Your task to perform on an android device: check data usage Image 0: 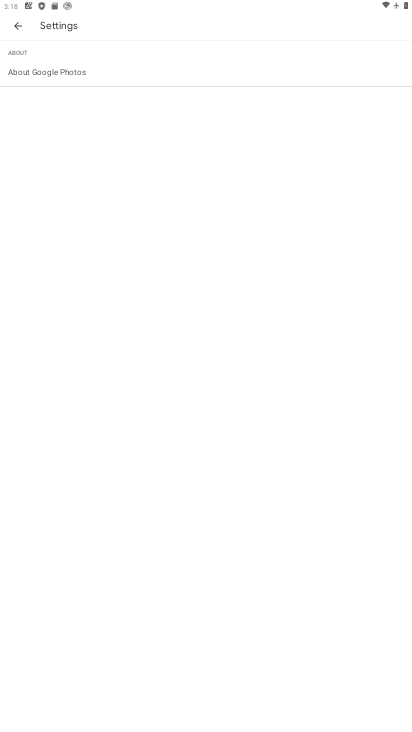
Step 0: press home button
Your task to perform on an android device: check data usage Image 1: 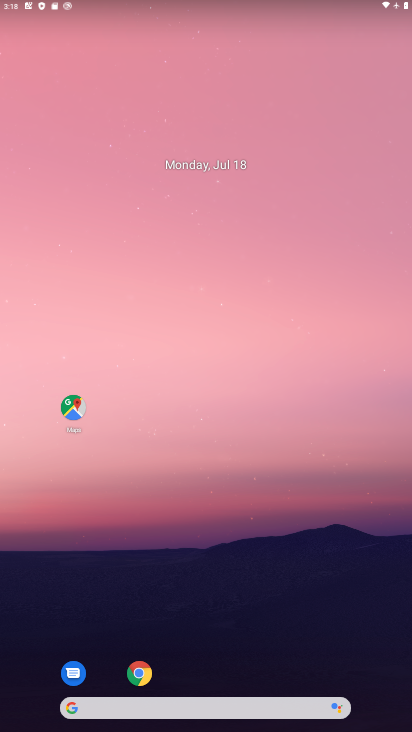
Step 1: drag from (191, 639) to (198, 269)
Your task to perform on an android device: check data usage Image 2: 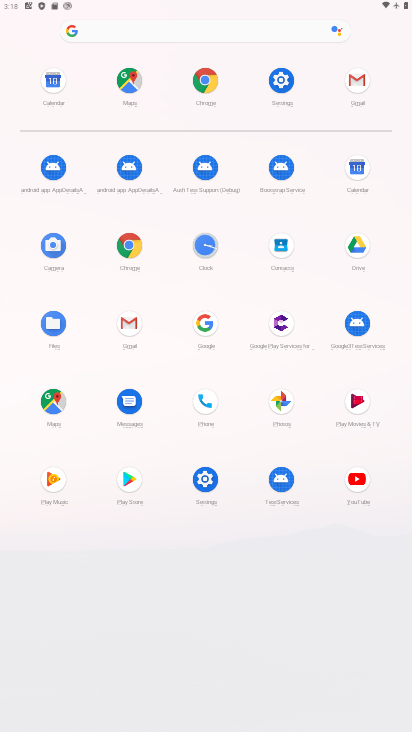
Step 2: click (281, 79)
Your task to perform on an android device: check data usage Image 3: 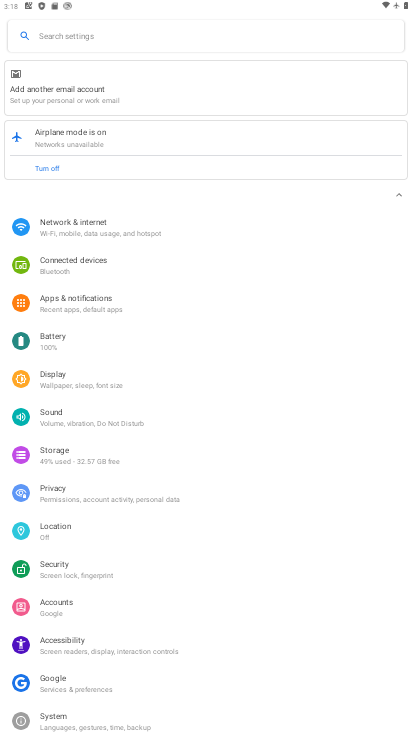
Step 3: click (119, 222)
Your task to perform on an android device: check data usage Image 4: 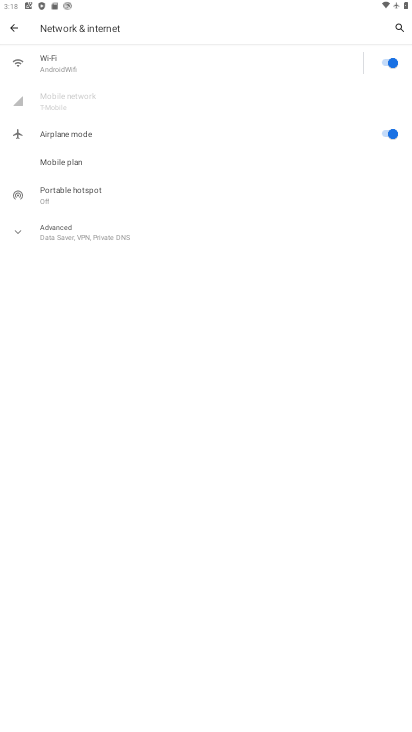
Step 4: click (88, 104)
Your task to perform on an android device: check data usage Image 5: 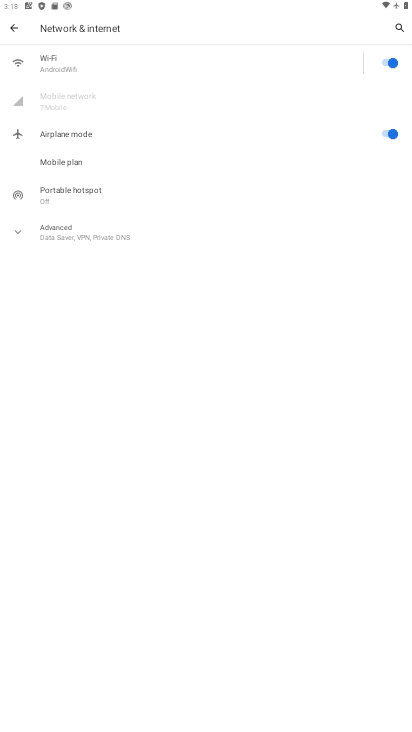
Step 5: task complete